Your task to perform on an android device: Search for alienware aurora on walmart.com, select the first entry, and add it to the cart. Image 0: 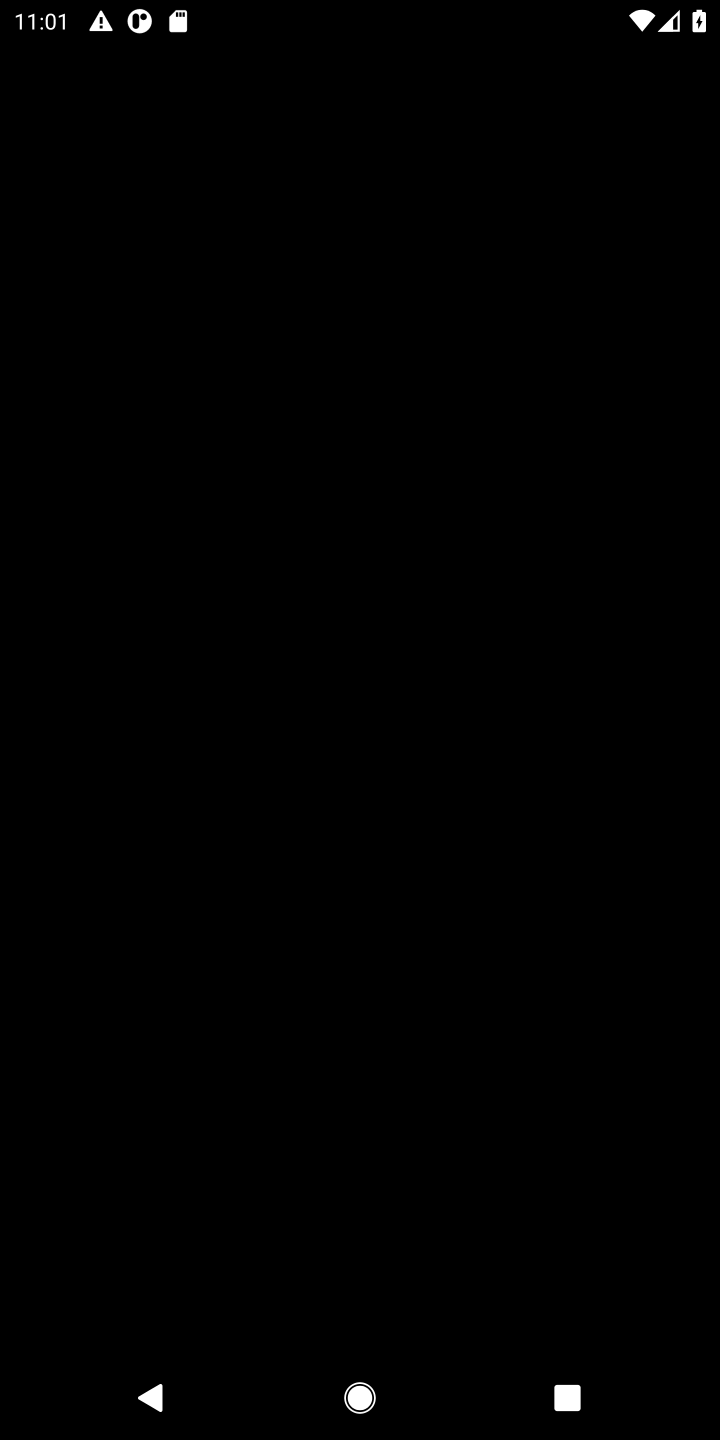
Step 0: press home button
Your task to perform on an android device: Search for alienware aurora on walmart.com, select the first entry, and add it to the cart. Image 1: 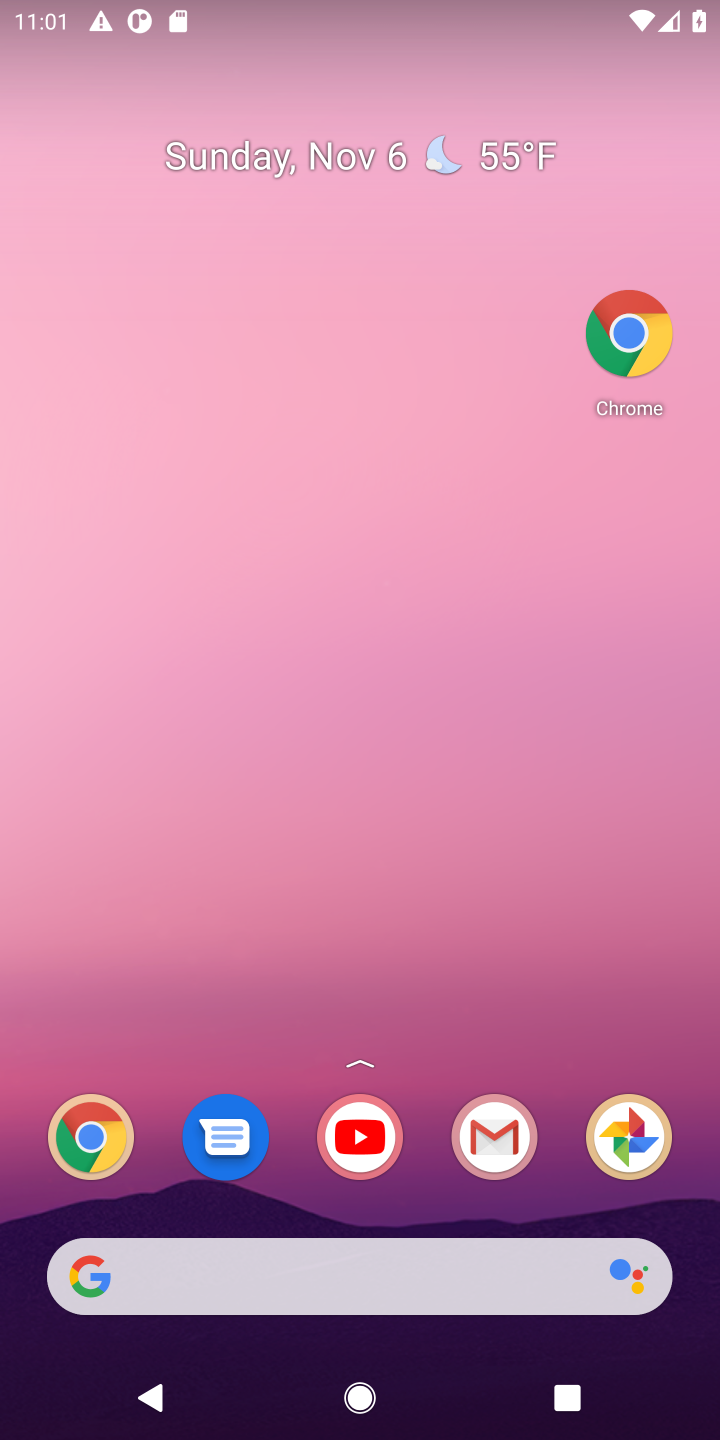
Step 1: drag from (294, 1207) to (297, 117)
Your task to perform on an android device: Search for alienware aurora on walmart.com, select the first entry, and add it to the cart. Image 2: 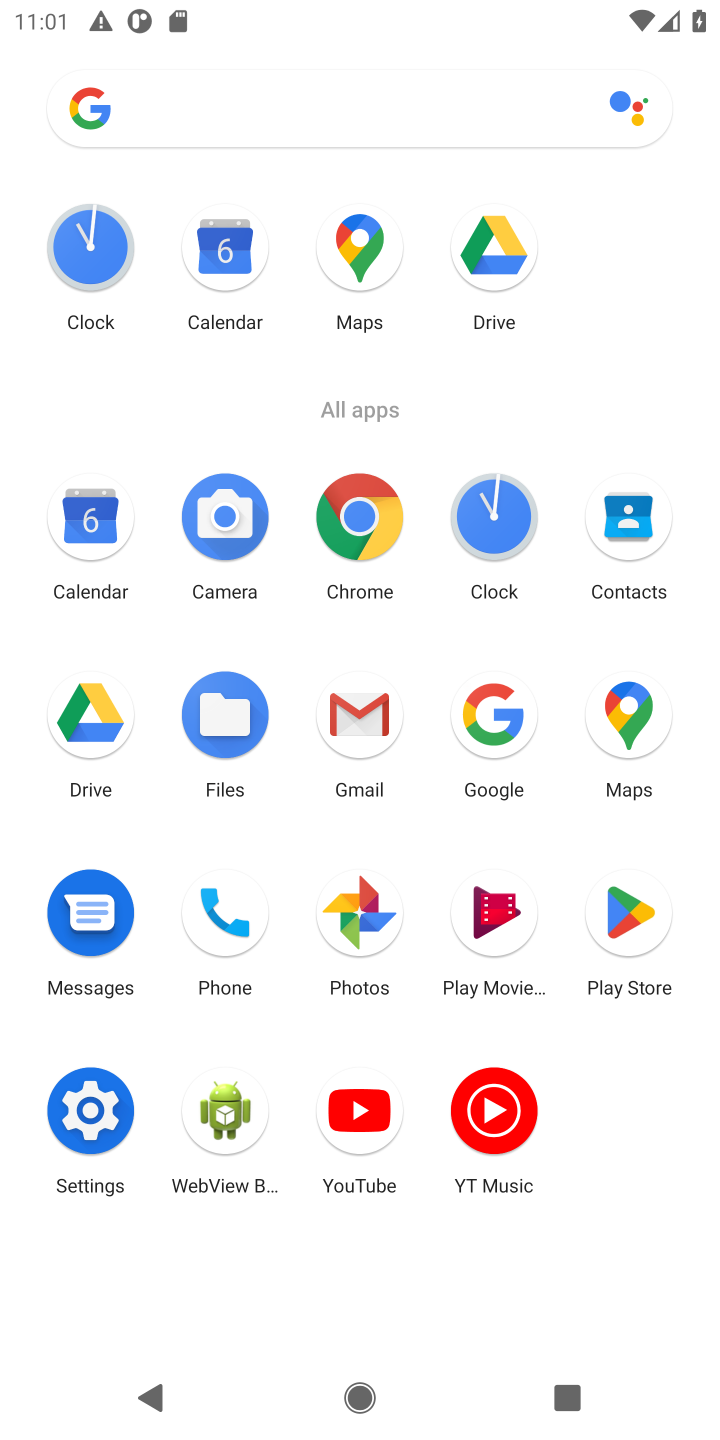
Step 2: click (354, 517)
Your task to perform on an android device: Search for alienware aurora on walmart.com, select the first entry, and add it to the cart. Image 3: 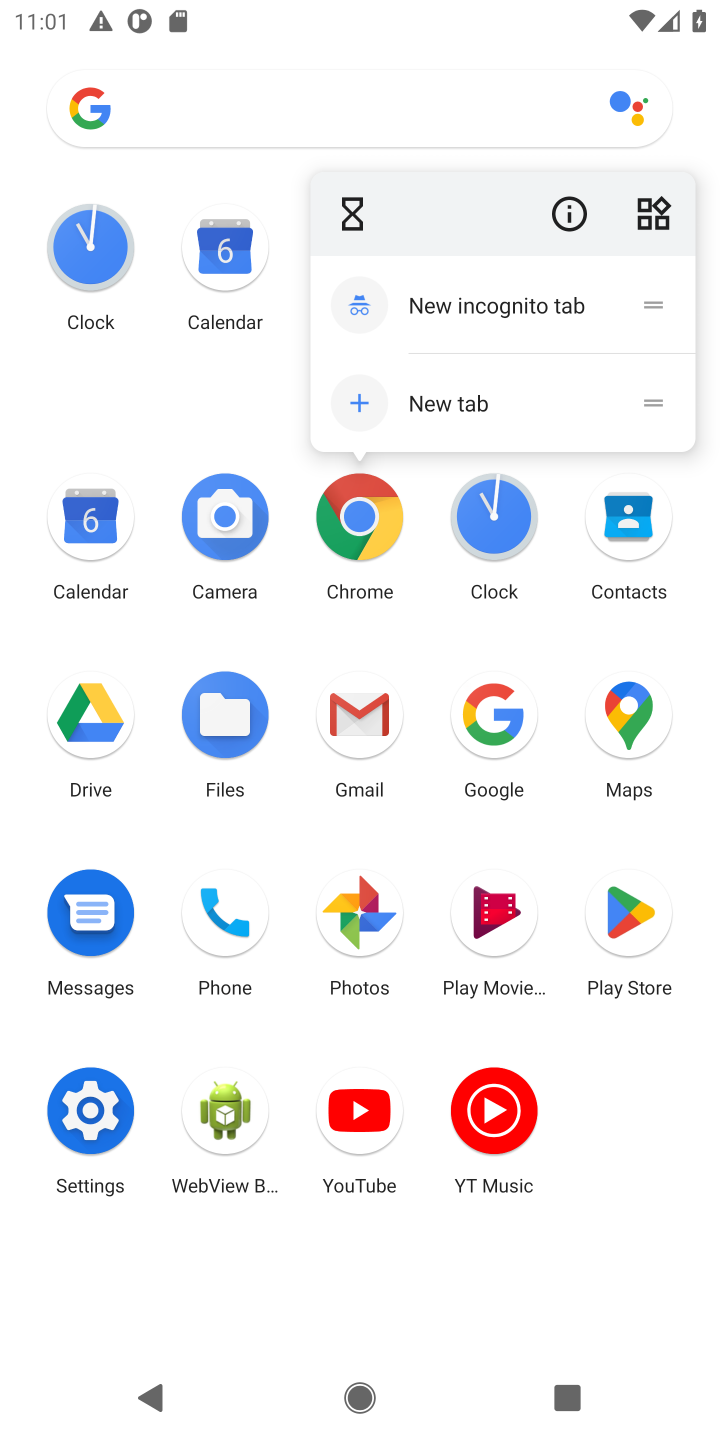
Step 3: click (368, 524)
Your task to perform on an android device: Search for alienware aurora on walmart.com, select the first entry, and add it to the cart. Image 4: 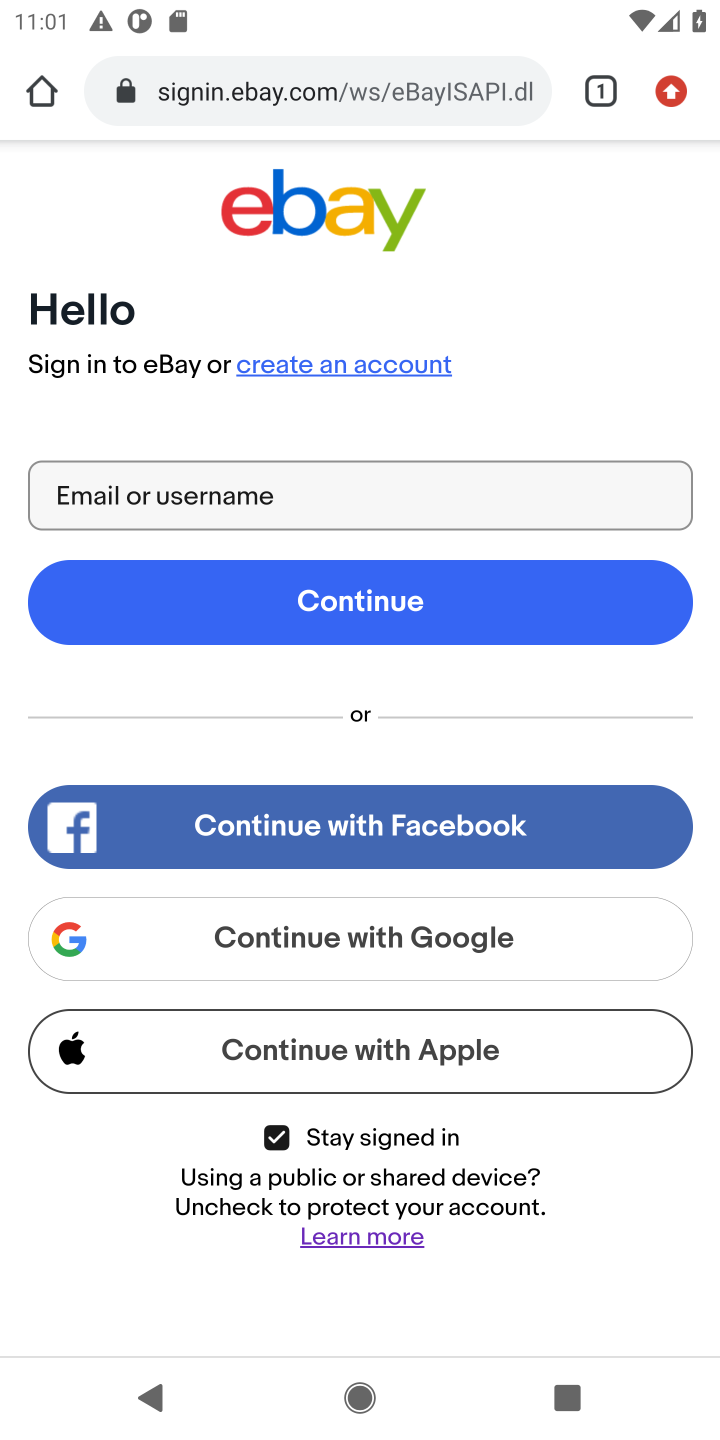
Step 4: click (473, 80)
Your task to perform on an android device: Search for alienware aurora on walmart.com, select the first entry, and add it to the cart. Image 5: 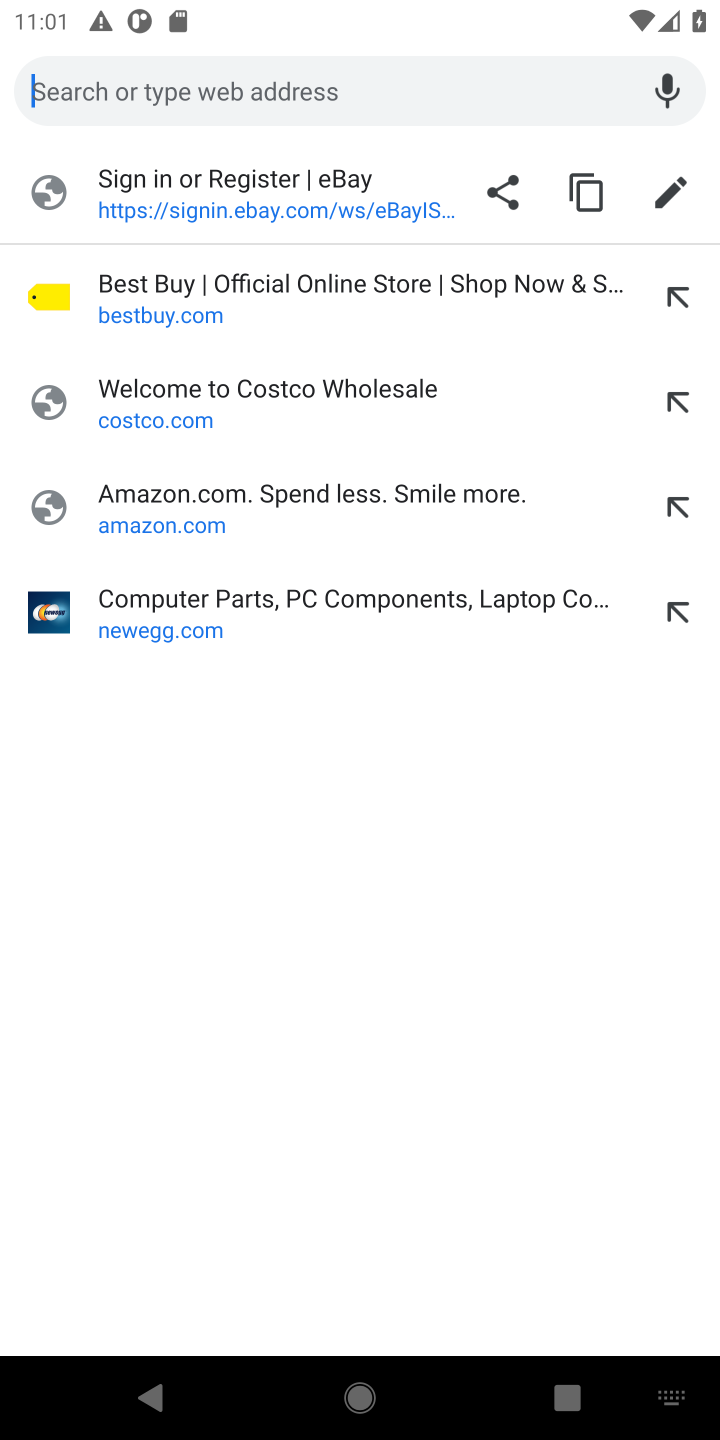
Step 5: type "walmart.com"
Your task to perform on an android device: Search for alienware aurora on walmart.com, select the first entry, and add it to the cart. Image 6: 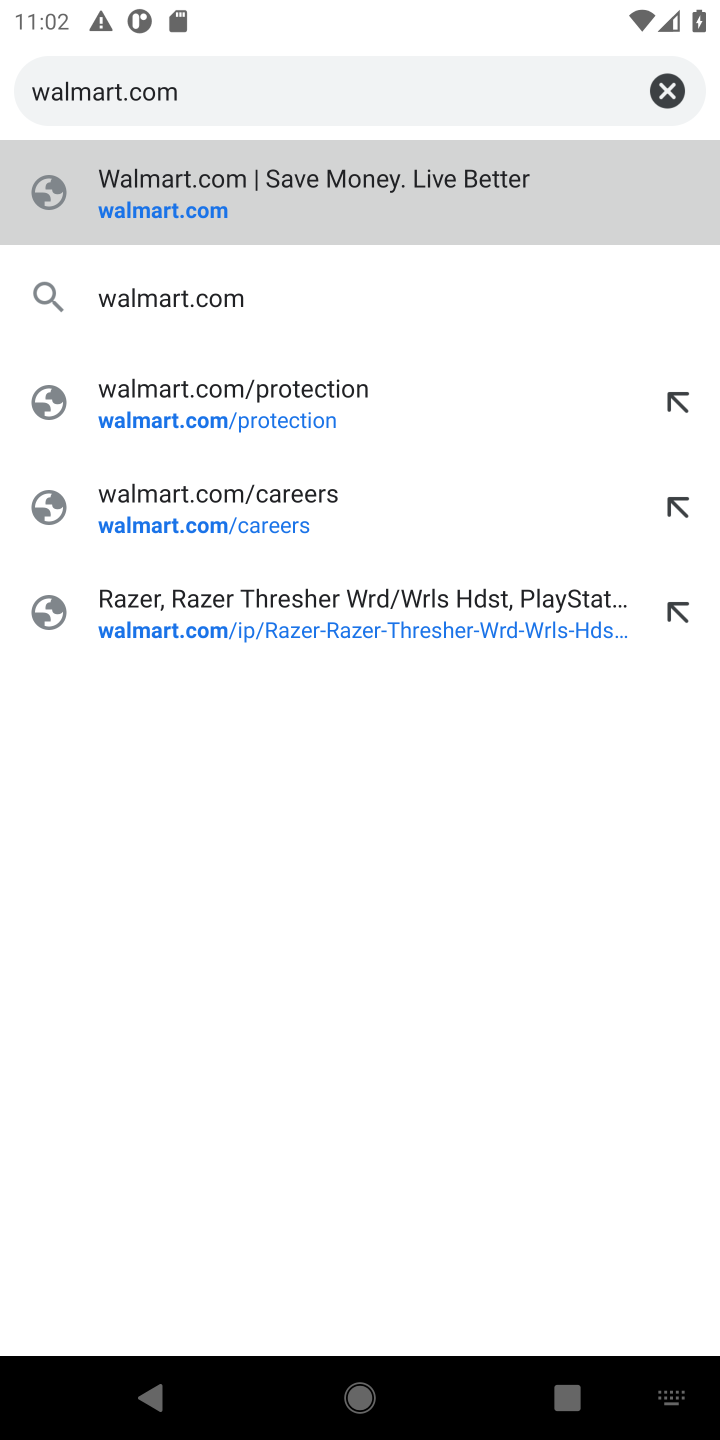
Step 6: press enter
Your task to perform on an android device: Search for alienware aurora on walmart.com, select the first entry, and add it to the cart. Image 7: 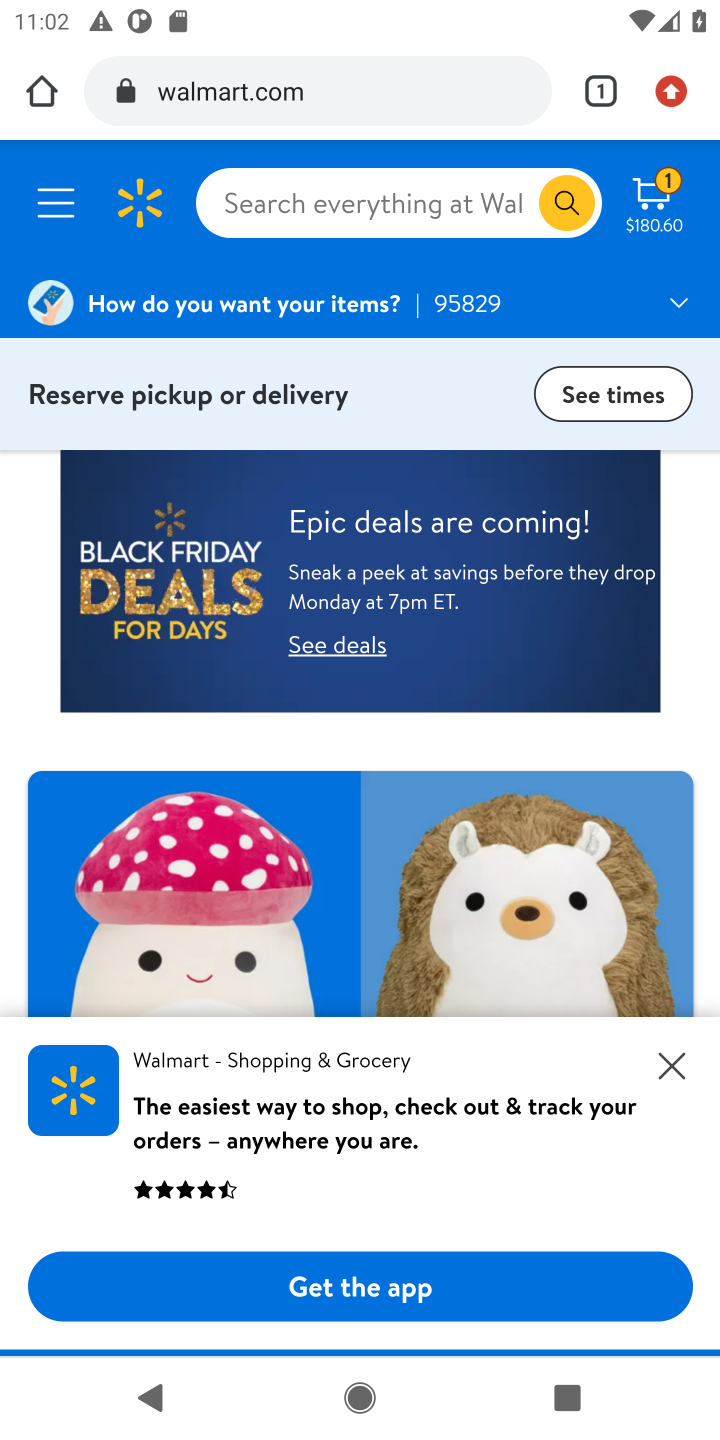
Step 7: click (420, 207)
Your task to perform on an android device: Search for alienware aurora on walmart.com, select the first entry, and add it to the cart. Image 8: 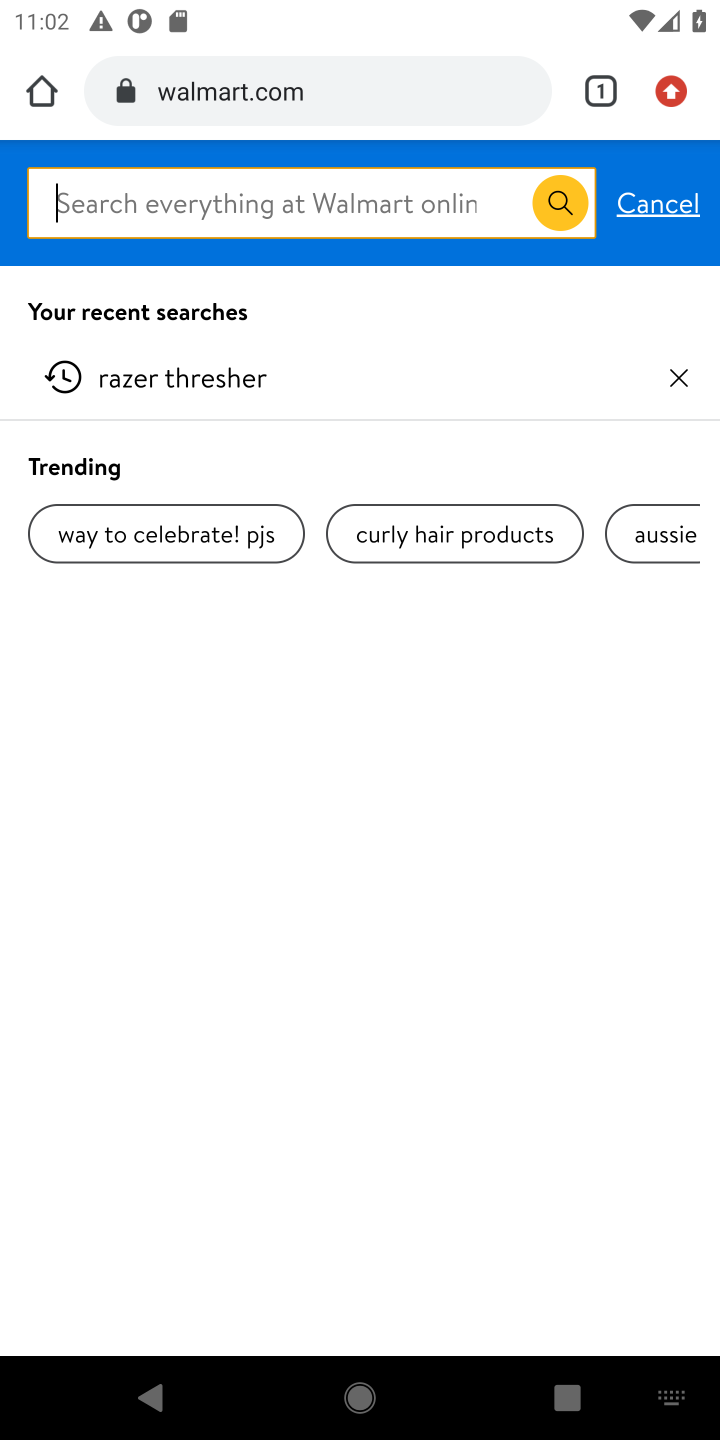
Step 8: type ""
Your task to perform on an android device: Search for alienware aurora on walmart.com, select the first entry, and add it to the cart. Image 9: 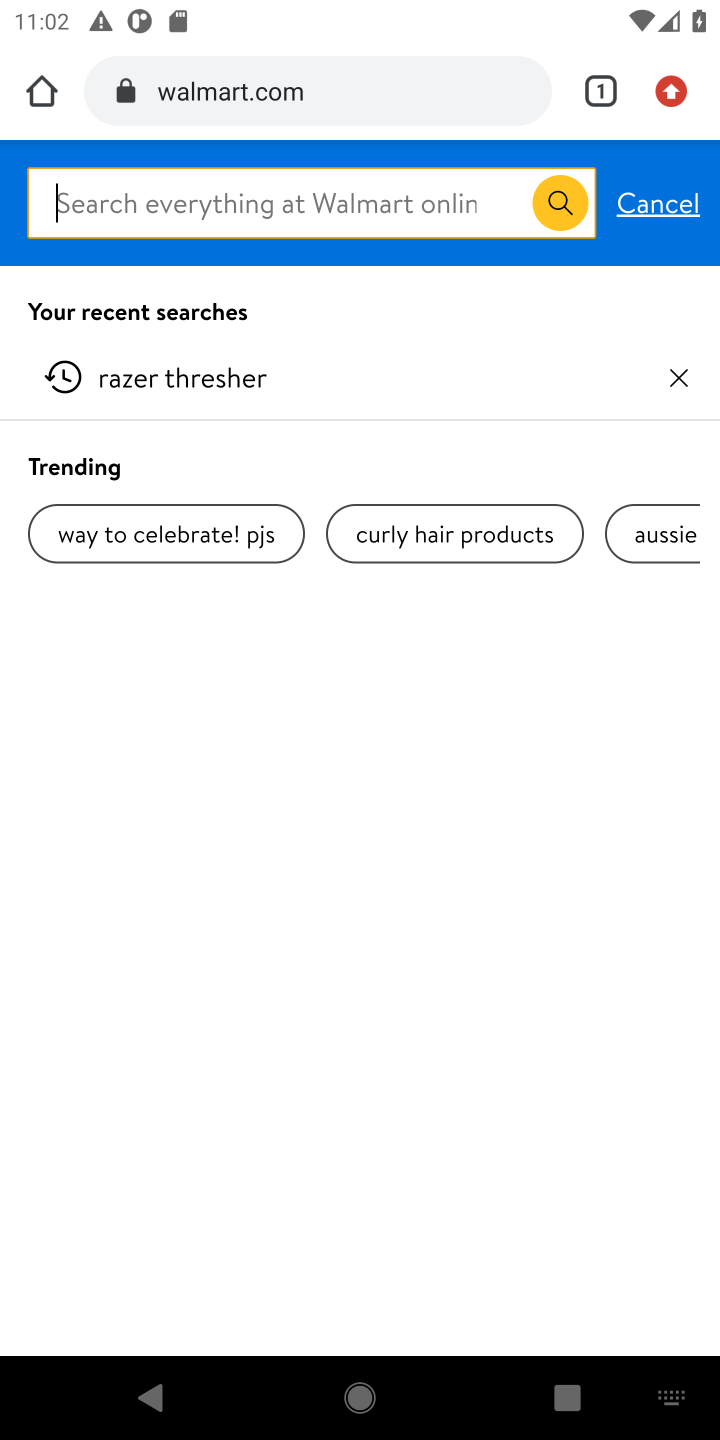
Step 9: type "alienware aurora"
Your task to perform on an android device: Search for alienware aurora on walmart.com, select the first entry, and add it to the cart. Image 10: 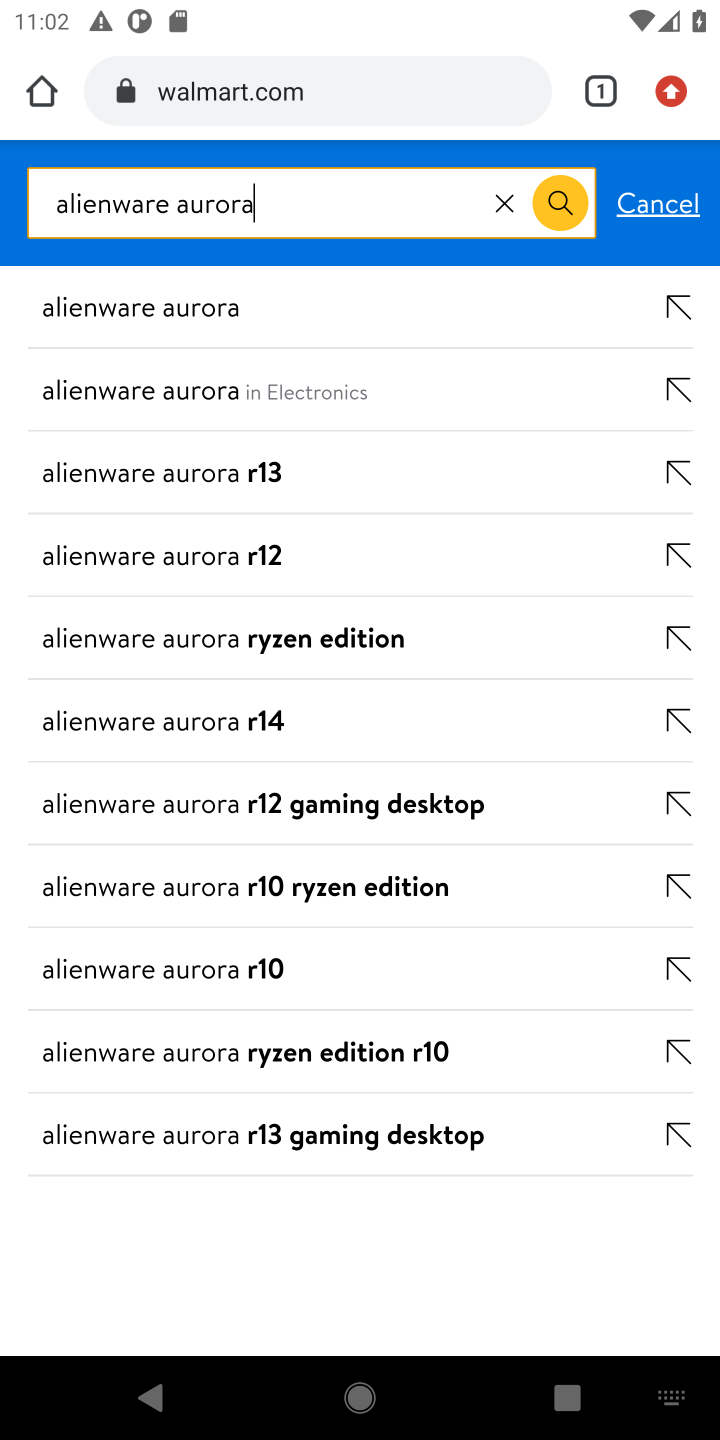
Step 10: press enter
Your task to perform on an android device: Search for alienware aurora on walmart.com, select the first entry, and add it to the cart. Image 11: 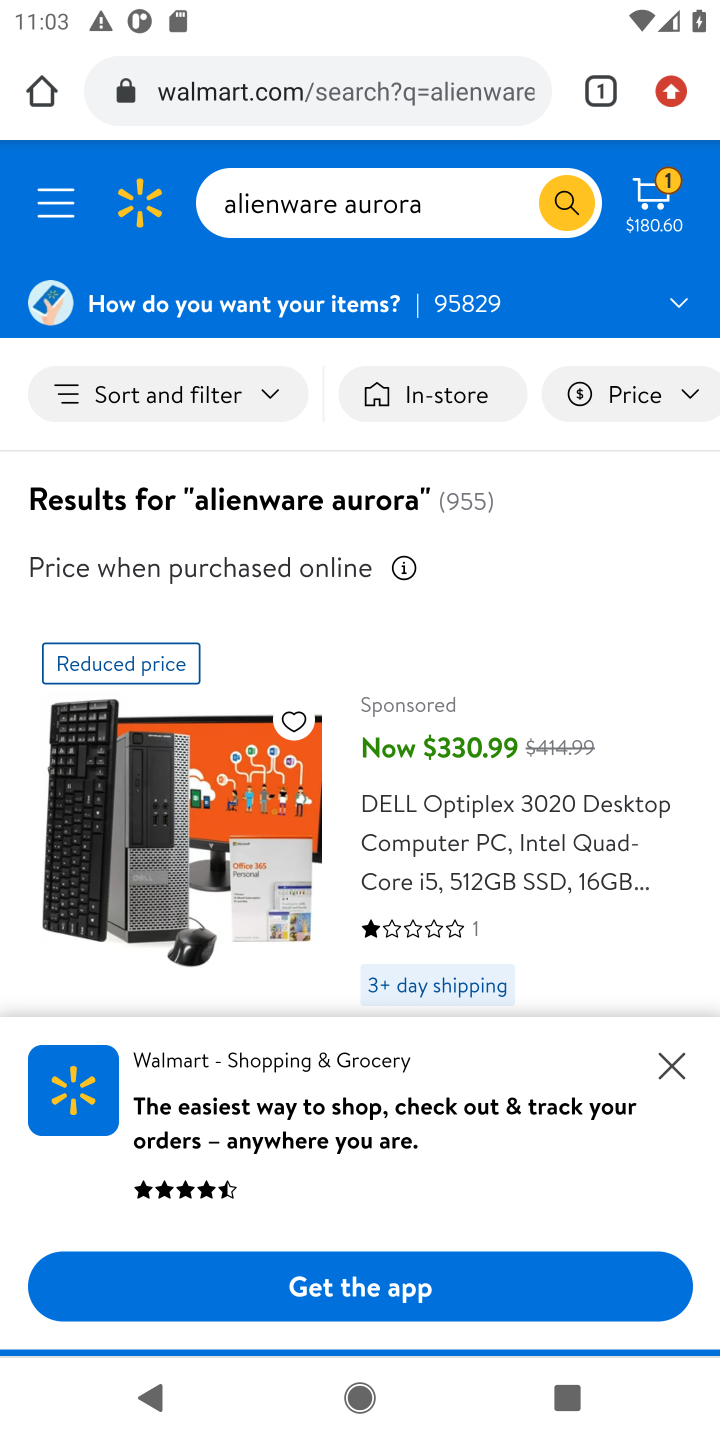
Step 11: drag from (534, 934) to (505, 352)
Your task to perform on an android device: Search for alienware aurora on walmart.com, select the first entry, and add it to the cart. Image 12: 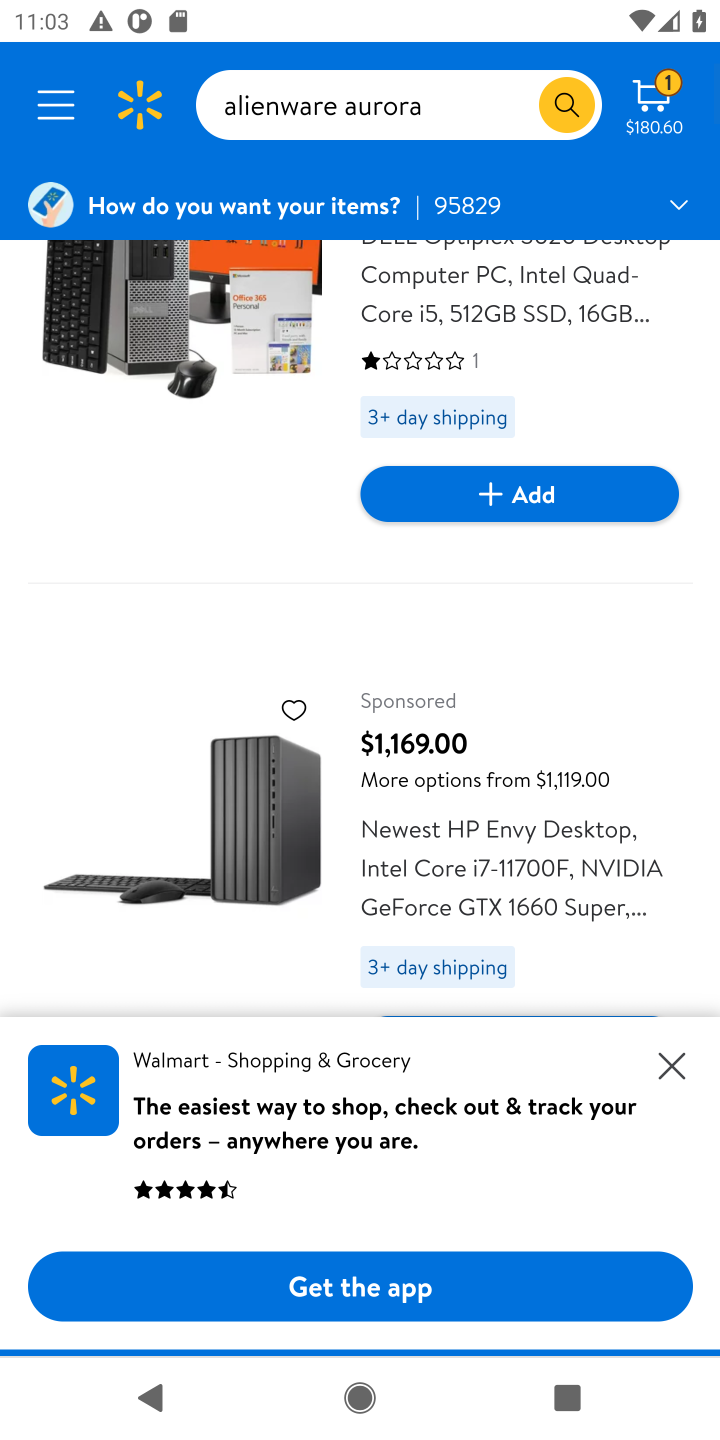
Step 12: drag from (533, 894) to (463, 355)
Your task to perform on an android device: Search for alienware aurora on walmart.com, select the first entry, and add it to the cart. Image 13: 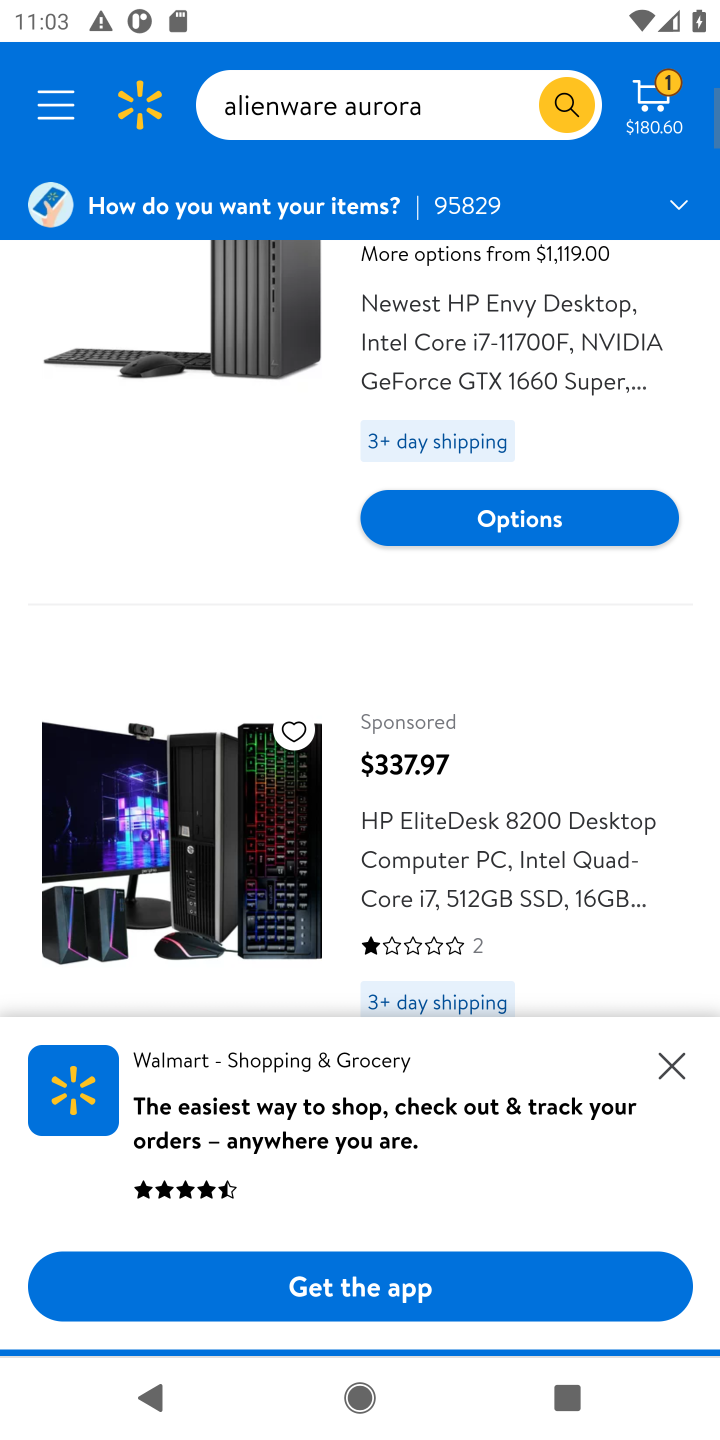
Step 13: drag from (478, 887) to (517, 311)
Your task to perform on an android device: Search for alienware aurora on walmart.com, select the first entry, and add it to the cart. Image 14: 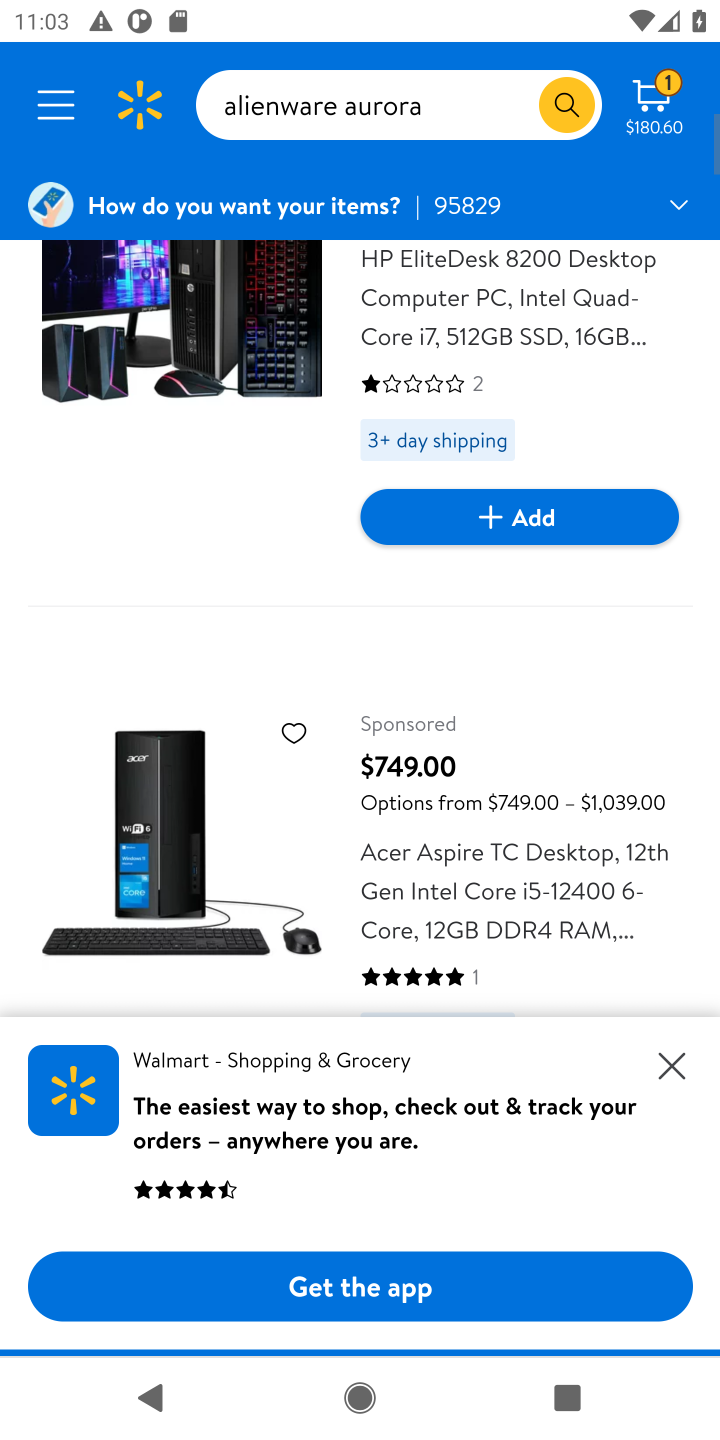
Step 14: drag from (548, 942) to (544, 169)
Your task to perform on an android device: Search for alienware aurora on walmart.com, select the first entry, and add it to the cart. Image 15: 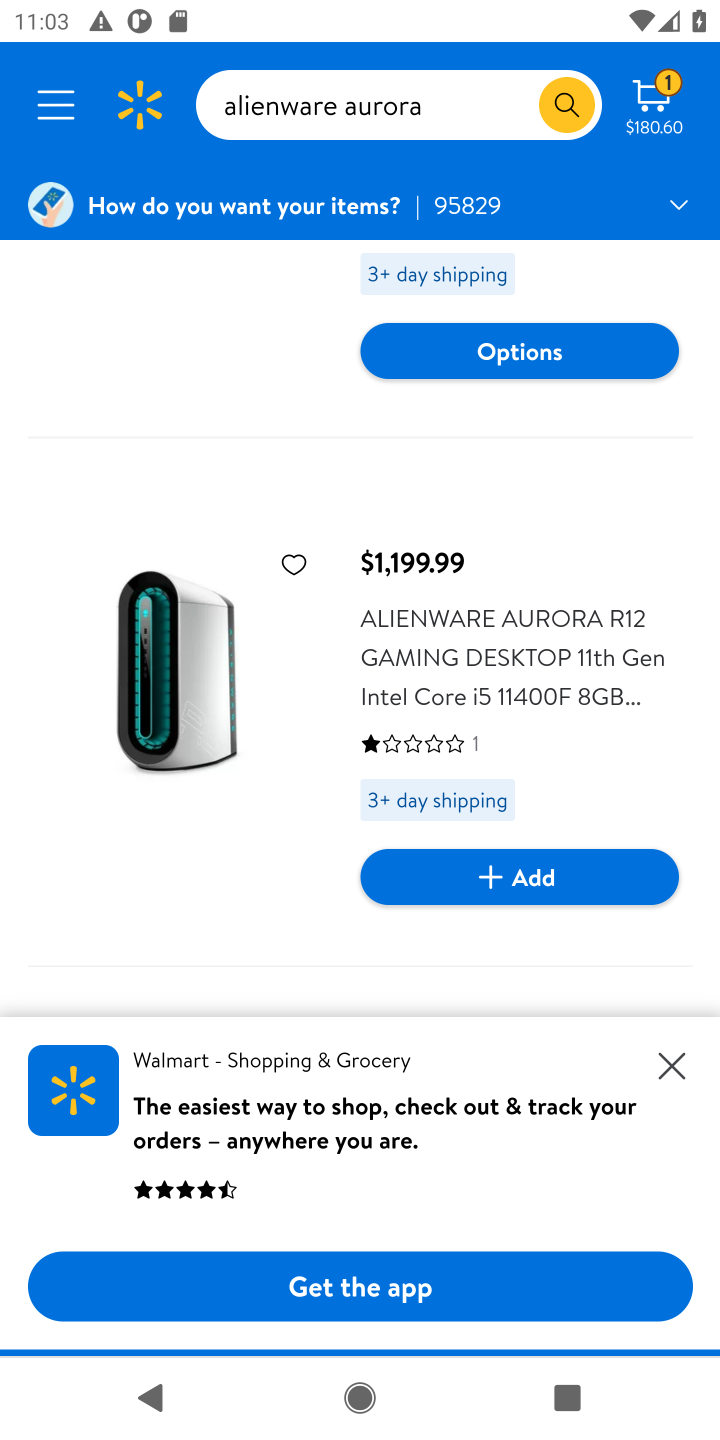
Step 15: click (504, 866)
Your task to perform on an android device: Search for alienware aurora on walmart.com, select the first entry, and add it to the cart. Image 16: 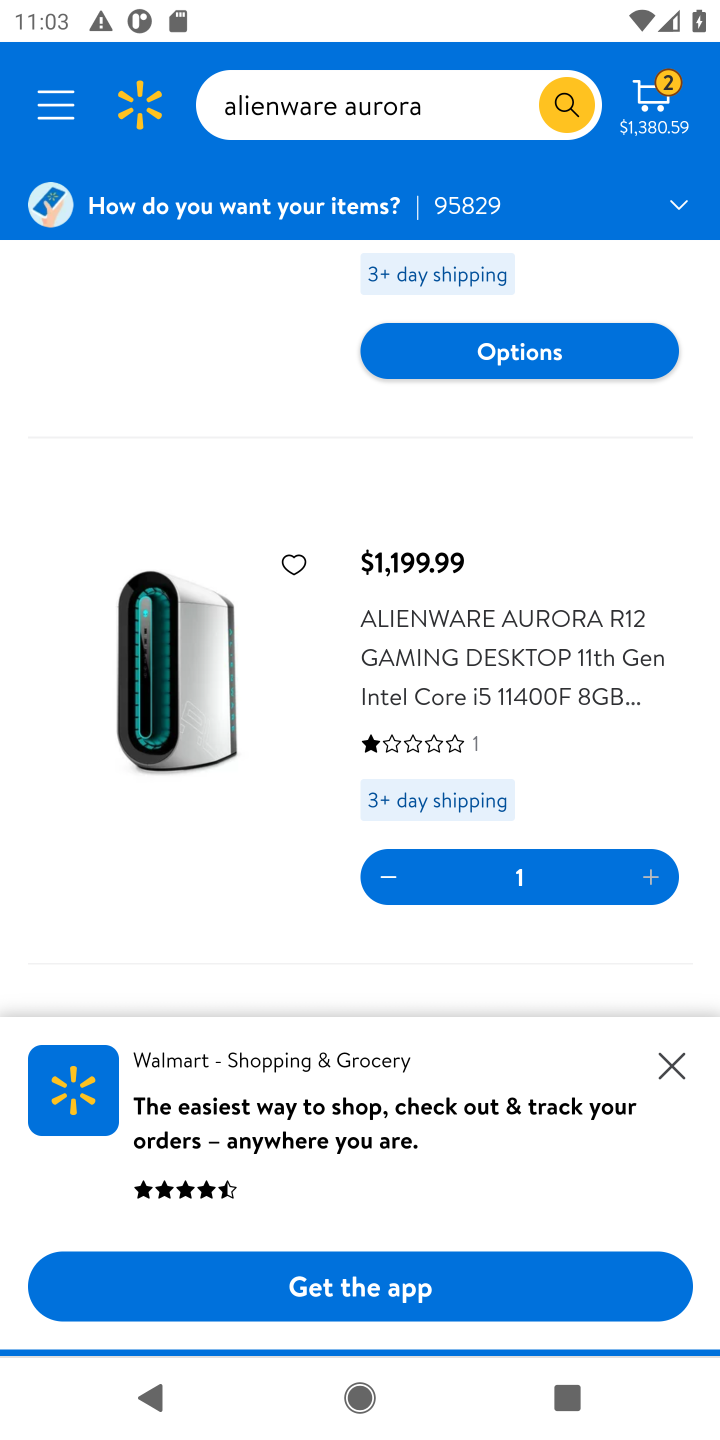
Step 16: task complete